Your task to perform on an android device: set default search engine in the chrome app Image 0: 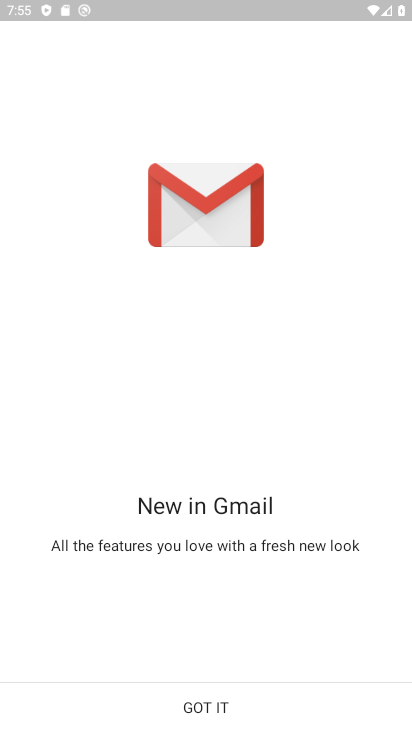
Step 0: press home button
Your task to perform on an android device: set default search engine in the chrome app Image 1: 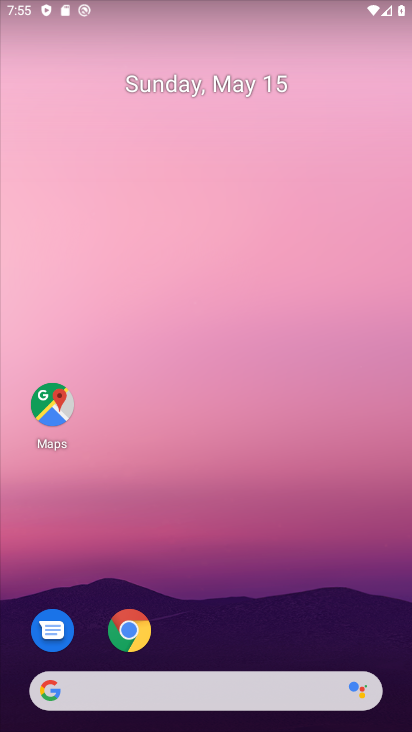
Step 1: click (131, 623)
Your task to perform on an android device: set default search engine in the chrome app Image 2: 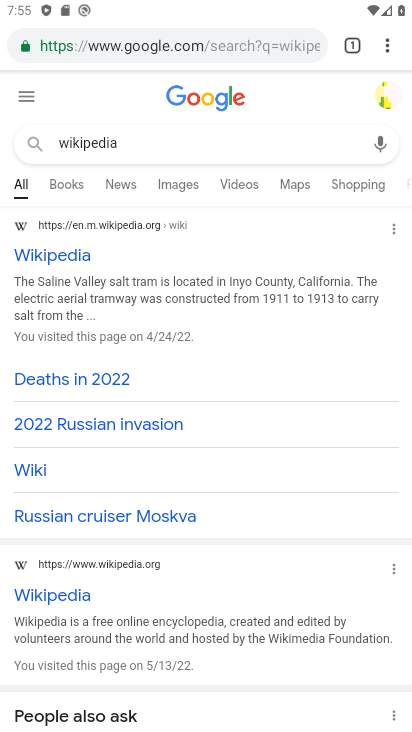
Step 2: click (382, 50)
Your task to perform on an android device: set default search engine in the chrome app Image 3: 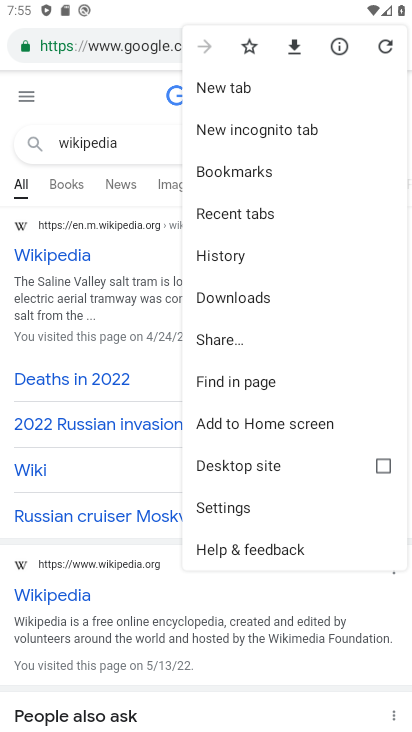
Step 3: click (225, 506)
Your task to perform on an android device: set default search engine in the chrome app Image 4: 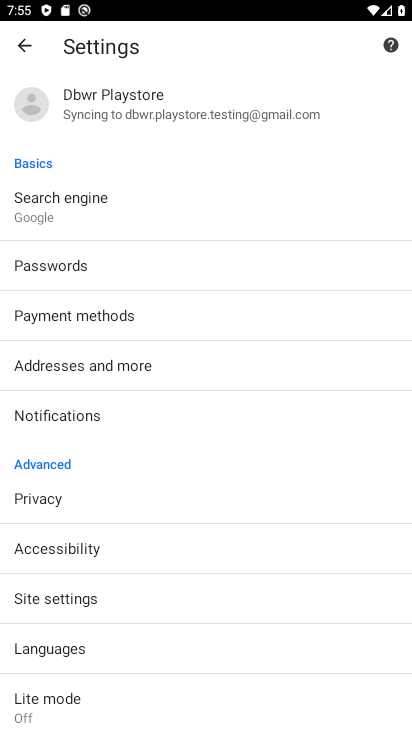
Step 4: click (75, 217)
Your task to perform on an android device: set default search engine in the chrome app Image 5: 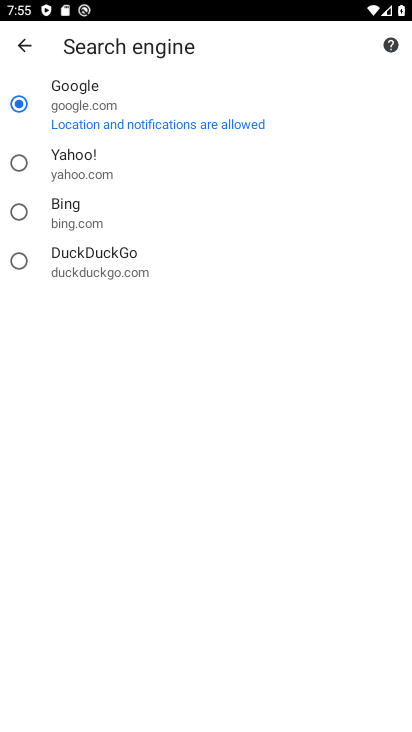
Step 5: task complete